Your task to perform on an android device: turn on showing notifications on the lock screen Image 0: 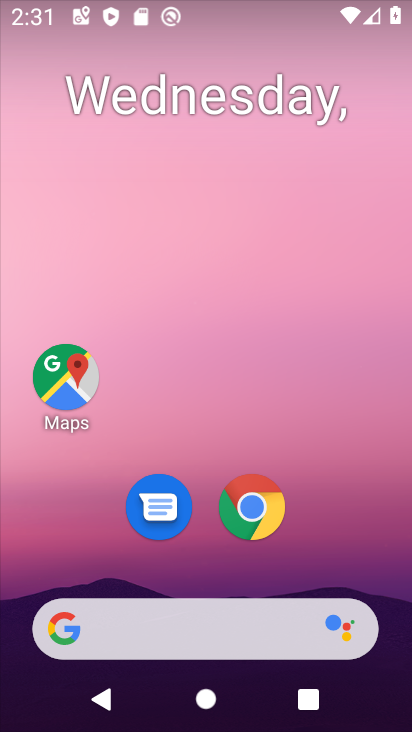
Step 0: drag from (366, 437) to (354, 92)
Your task to perform on an android device: turn on showing notifications on the lock screen Image 1: 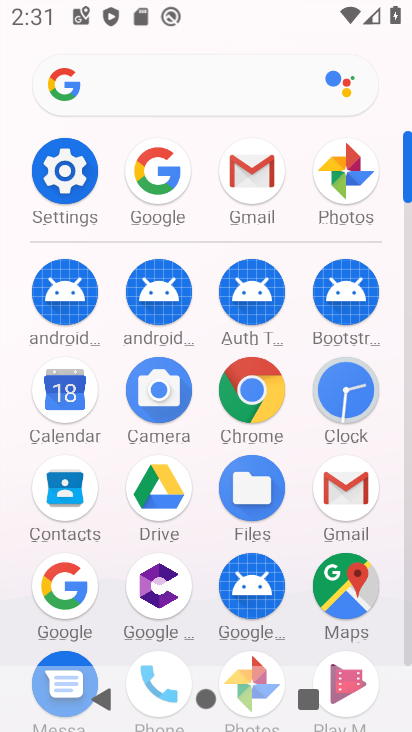
Step 1: click (66, 171)
Your task to perform on an android device: turn on showing notifications on the lock screen Image 2: 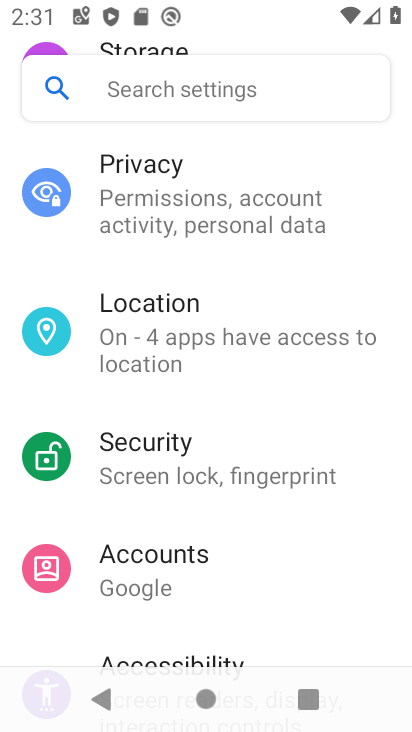
Step 2: drag from (244, 208) to (215, 433)
Your task to perform on an android device: turn on showing notifications on the lock screen Image 3: 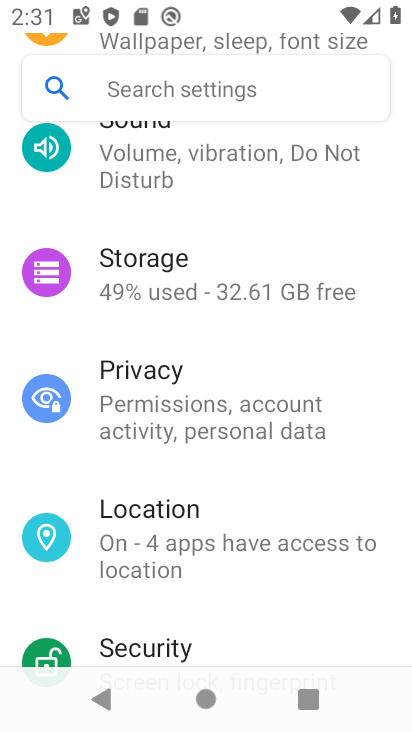
Step 3: drag from (266, 197) to (224, 538)
Your task to perform on an android device: turn on showing notifications on the lock screen Image 4: 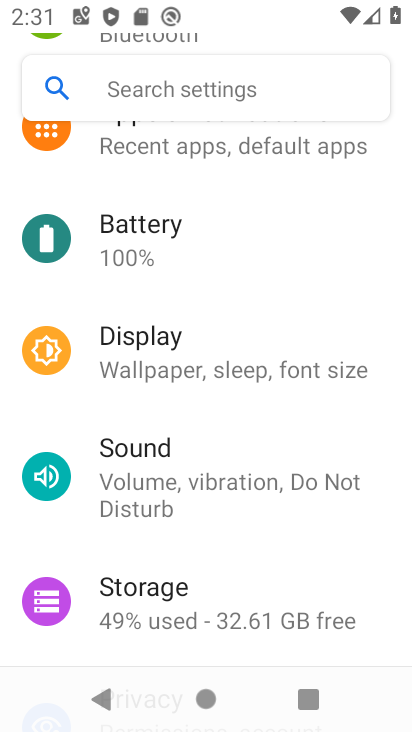
Step 4: click (272, 368)
Your task to perform on an android device: turn on showing notifications on the lock screen Image 5: 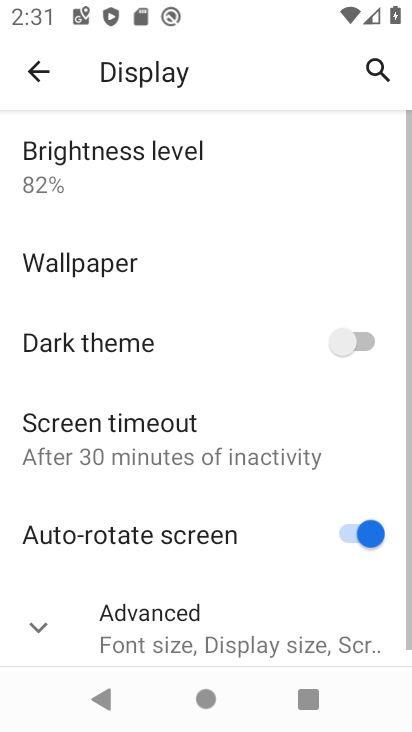
Step 5: drag from (223, 425) to (304, 145)
Your task to perform on an android device: turn on showing notifications on the lock screen Image 6: 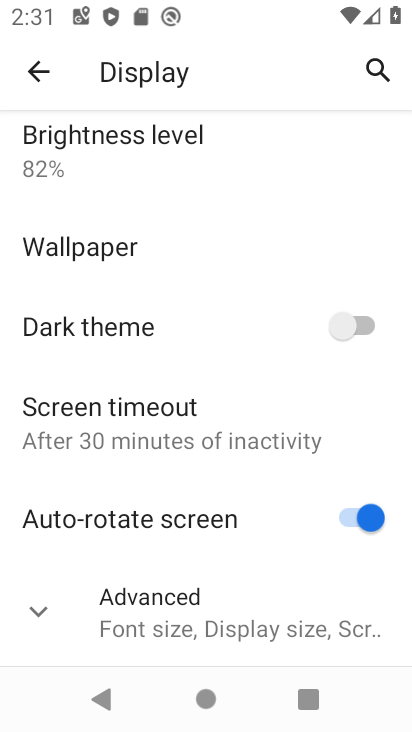
Step 6: click (161, 599)
Your task to perform on an android device: turn on showing notifications on the lock screen Image 7: 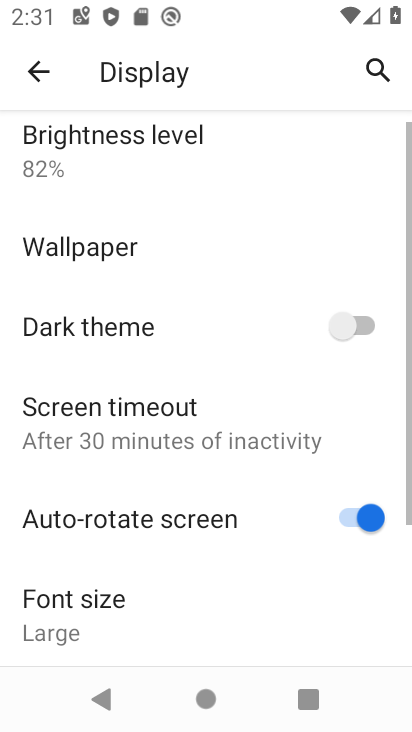
Step 7: task complete